Your task to perform on an android device: all mails in gmail Image 0: 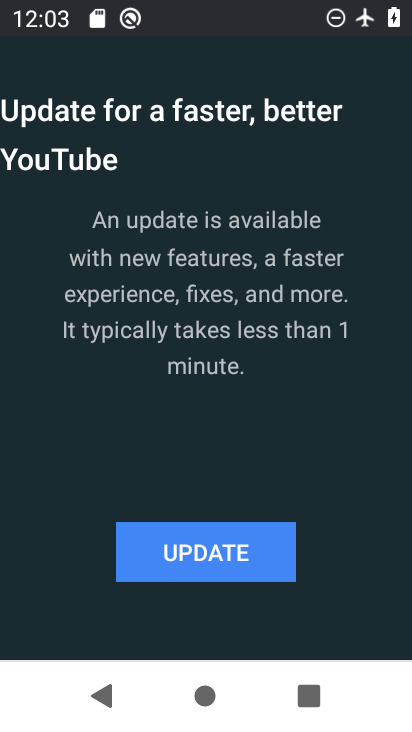
Step 0: press back button
Your task to perform on an android device: all mails in gmail Image 1: 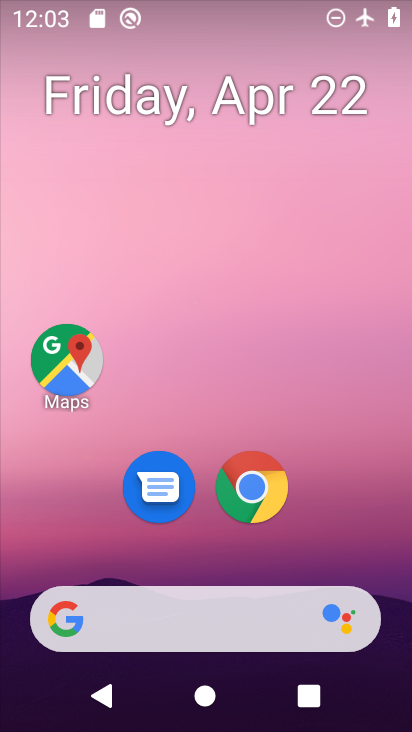
Step 1: drag from (324, 599) to (300, 156)
Your task to perform on an android device: all mails in gmail Image 2: 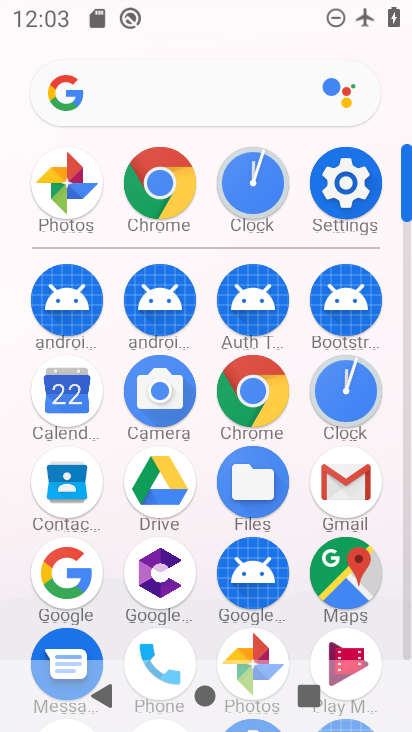
Step 2: click (338, 477)
Your task to perform on an android device: all mails in gmail Image 3: 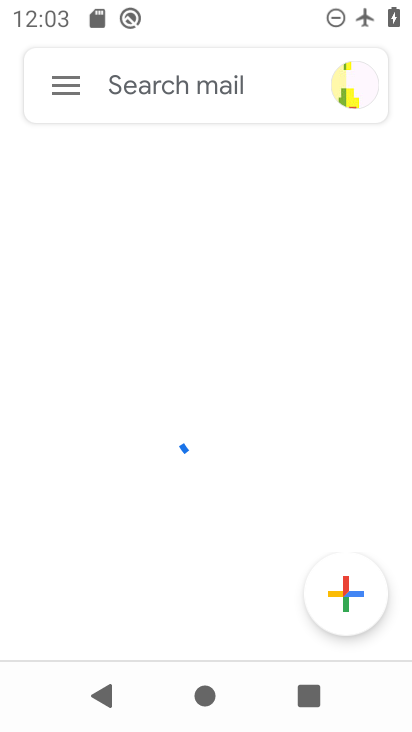
Step 3: click (55, 85)
Your task to perform on an android device: all mails in gmail Image 4: 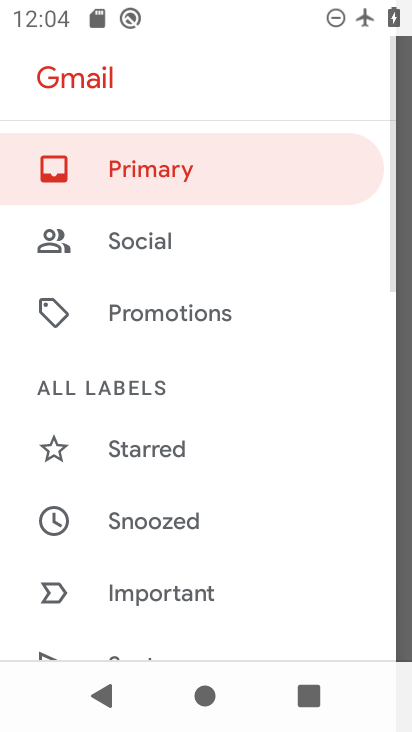
Step 4: drag from (199, 592) to (222, 126)
Your task to perform on an android device: all mails in gmail Image 5: 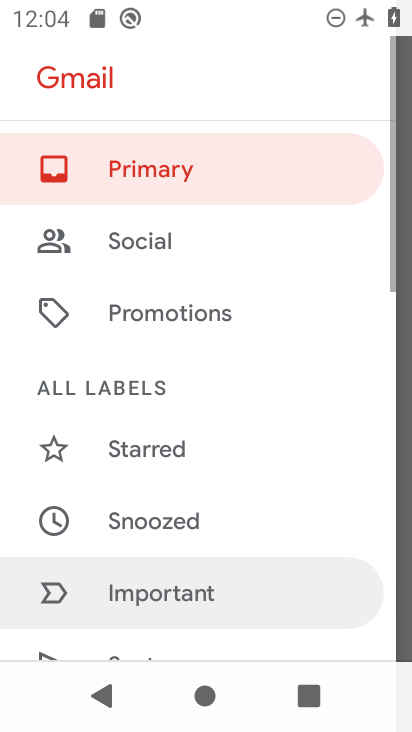
Step 5: drag from (258, 461) to (303, 285)
Your task to perform on an android device: all mails in gmail Image 6: 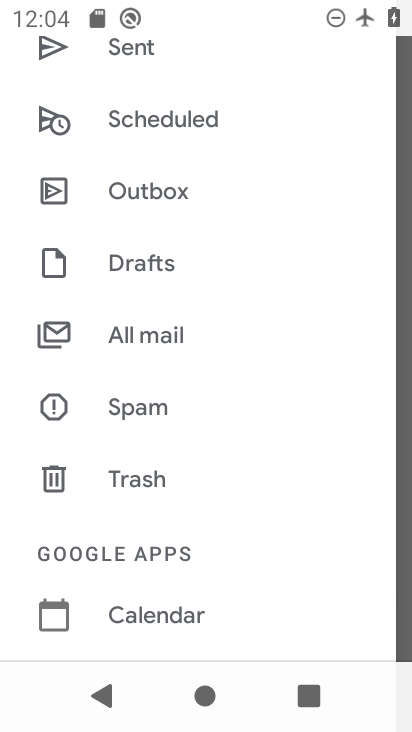
Step 6: click (167, 316)
Your task to perform on an android device: all mails in gmail Image 7: 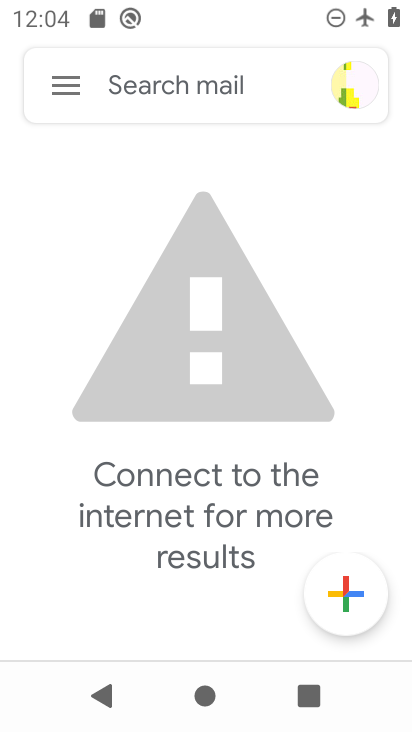
Step 7: click (60, 78)
Your task to perform on an android device: all mails in gmail Image 8: 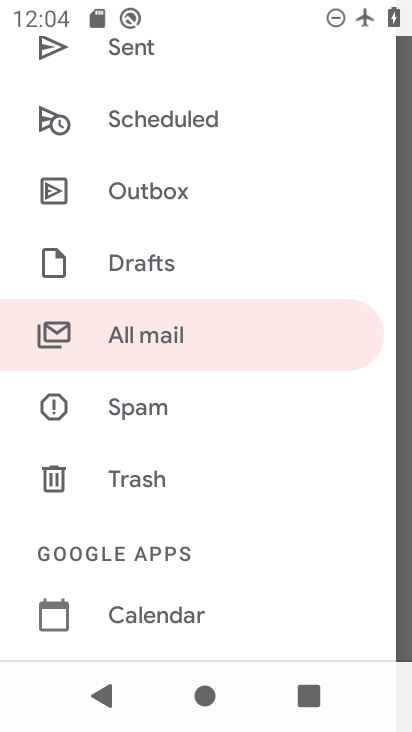
Step 8: click (155, 331)
Your task to perform on an android device: all mails in gmail Image 9: 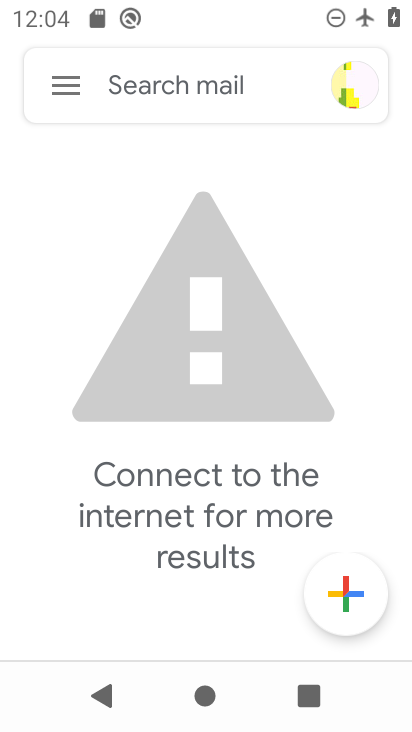
Step 9: task complete